Your task to perform on an android device: Go to Android settings Image 0: 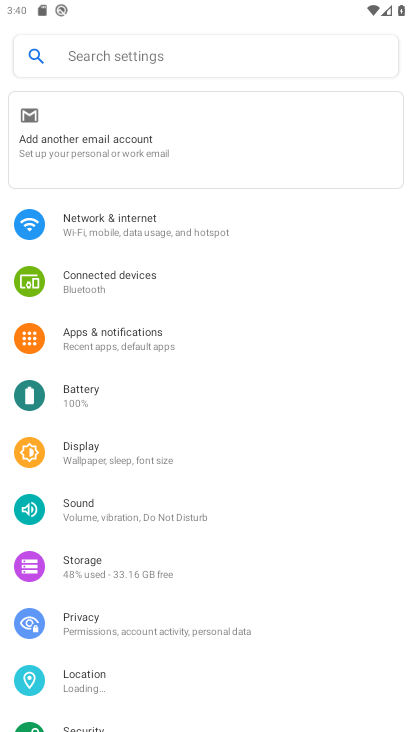
Step 0: task complete